Your task to perform on an android device: see sites visited before in the chrome app Image 0: 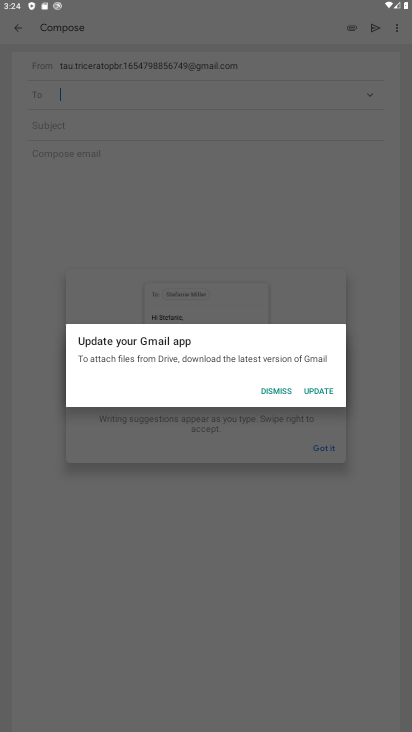
Step 0: press home button
Your task to perform on an android device: see sites visited before in the chrome app Image 1: 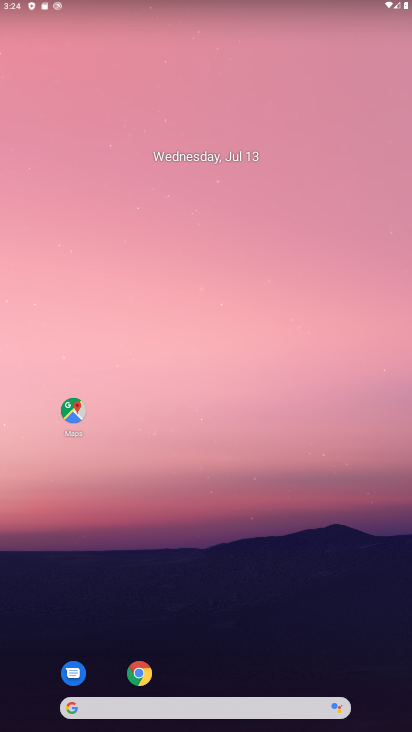
Step 1: drag from (274, 634) to (301, 94)
Your task to perform on an android device: see sites visited before in the chrome app Image 2: 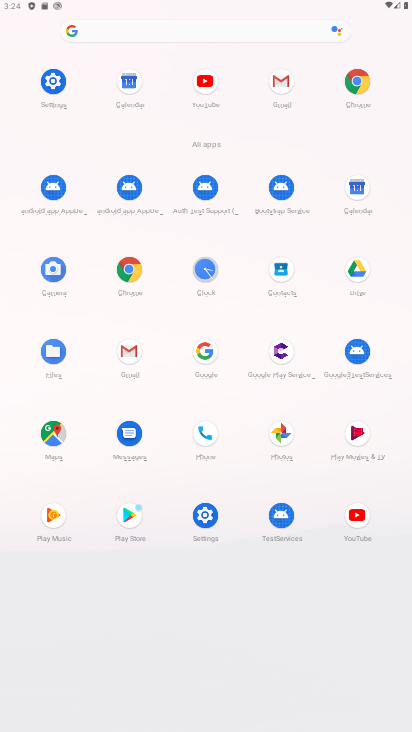
Step 2: click (125, 262)
Your task to perform on an android device: see sites visited before in the chrome app Image 3: 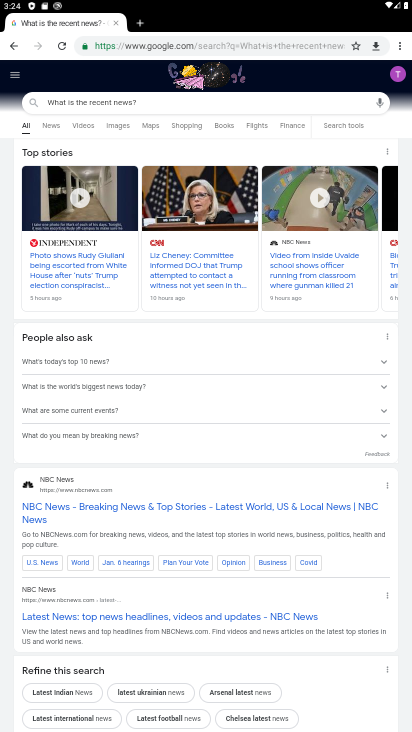
Step 3: drag from (398, 50) to (305, 307)
Your task to perform on an android device: see sites visited before in the chrome app Image 4: 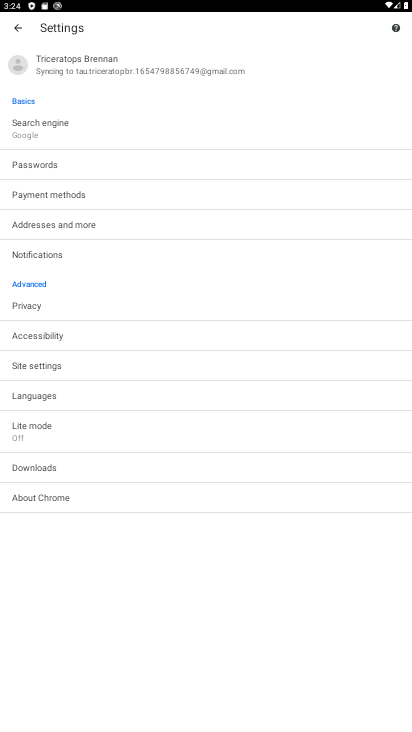
Step 4: click (57, 360)
Your task to perform on an android device: see sites visited before in the chrome app Image 5: 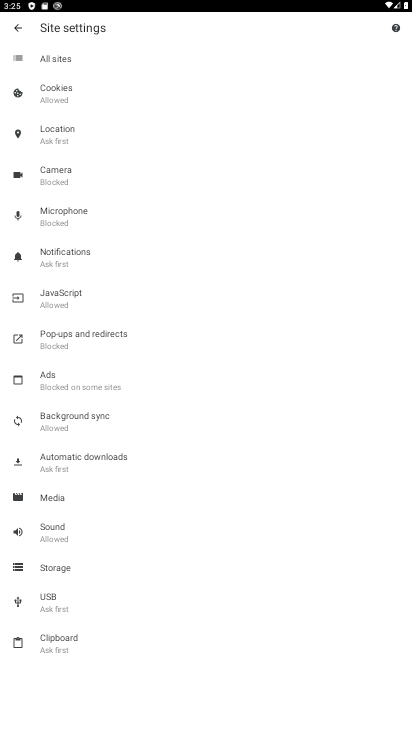
Step 5: click (59, 57)
Your task to perform on an android device: see sites visited before in the chrome app Image 6: 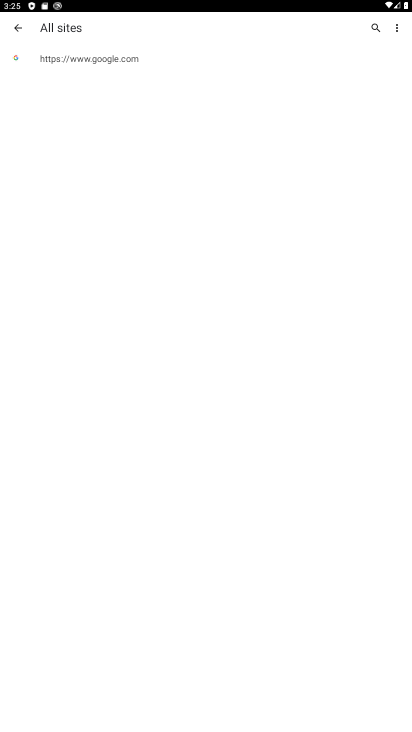
Step 6: task complete